Your task to perform on an android device: toggle improve location accuracy Image 0: 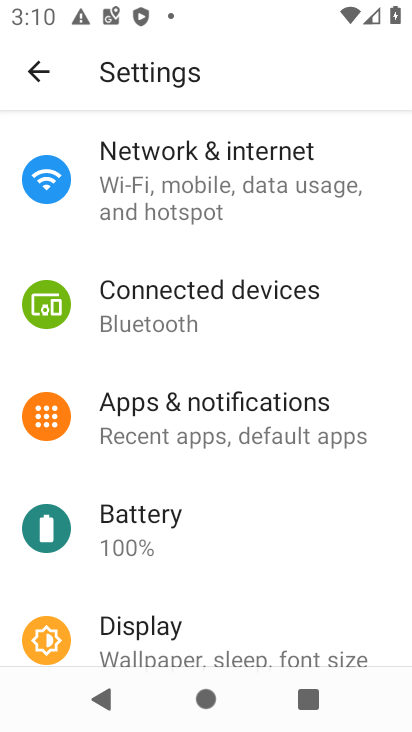
Step 0: press home button
Your task to perform on an android device: toggle improve location accuracy Image 1: 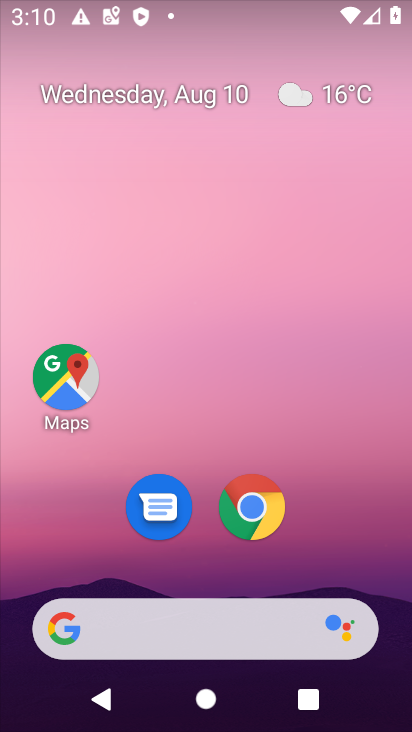
Step 1: drag from (363, 544) to (245, 75)
Your task to perform on an android device: toggle improve location accuracy Image 2: 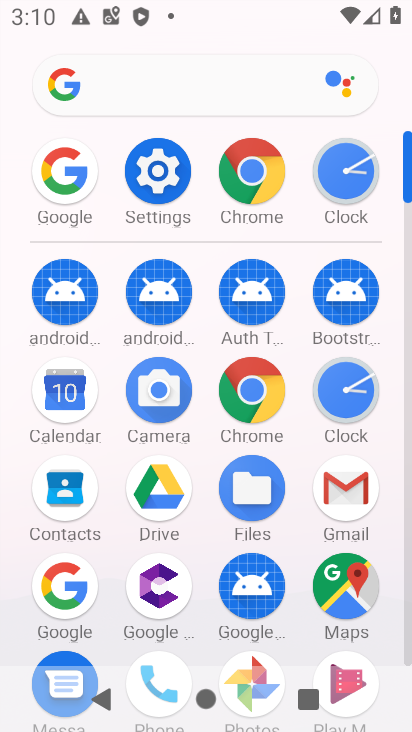
Step 2: drag from (201, 595) to (194, 269)
Your task to perform on an android device: toggle improve location accuracy Image 3: 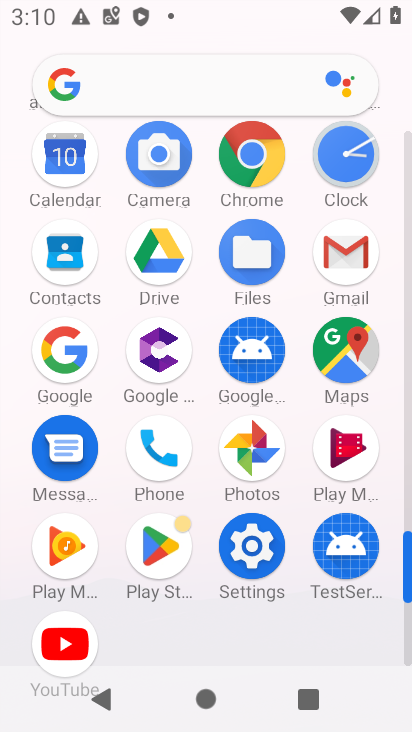
Step 3: click (247, 556)
Your task to perform on an android device: toggle improve location accuracy Image 4: 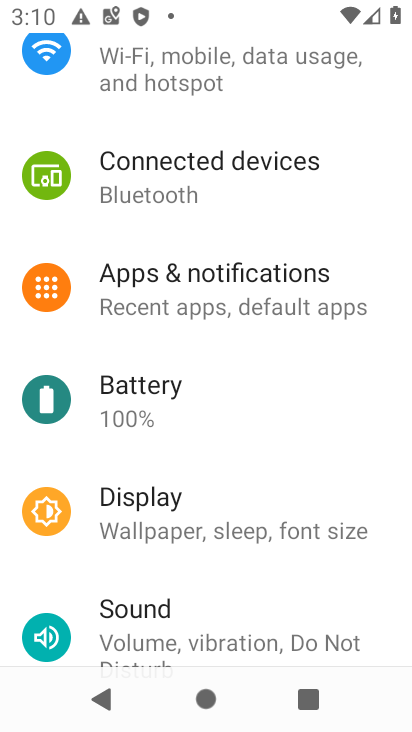
Step 4: drag from (271, 573) to (288, 192)
Your task to perform on an android device: toggle improve location accuracy Image 5: 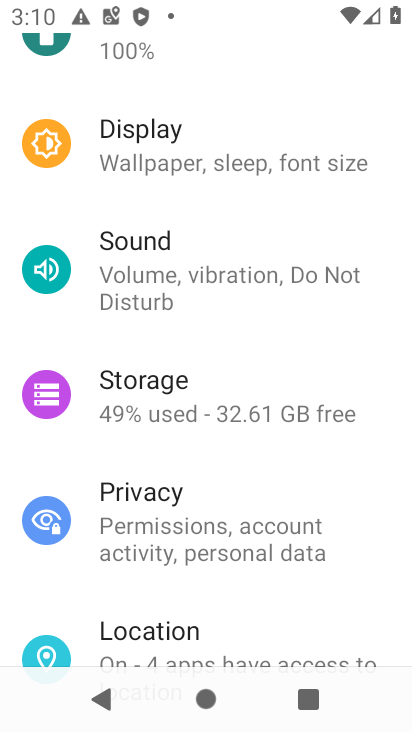
Step 5: click (163, 623)
Your task to perform on an android device: toggle improve location accuracy Image 6: 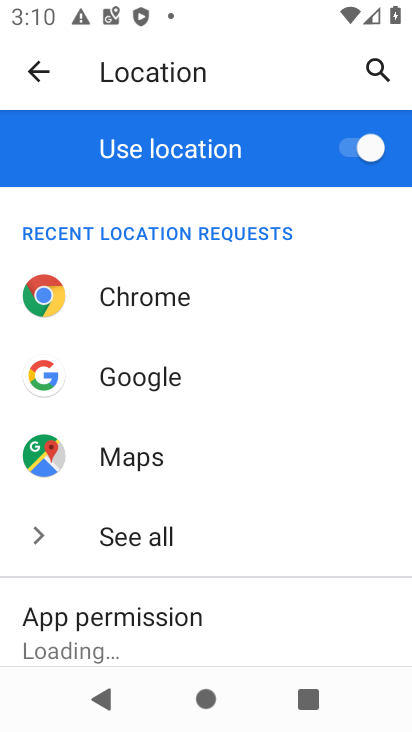
Step 6: drag from (257, 644) to (241, 248)
Your task to perform on an android device: toggle improve location accuracy Image 7: 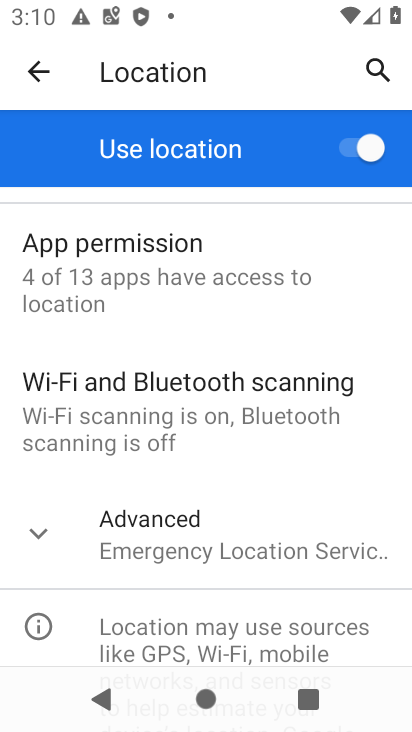
Step 7: click (151, 519)
Your task to perform on an android device: toggle improve location accuracy Image 8: 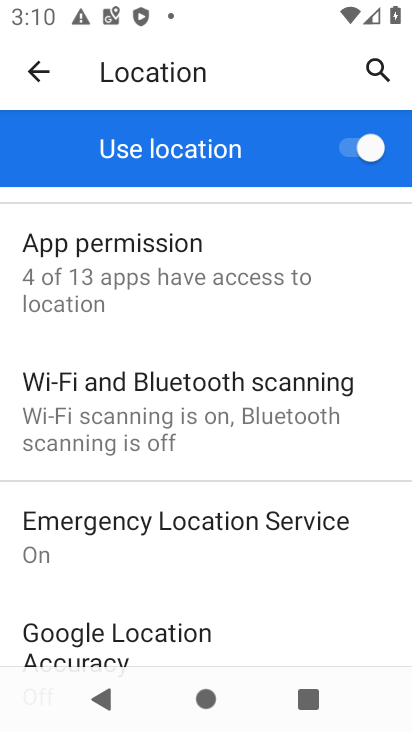
Step 8: drag from (269, 629) to (250, 206)
Your task to perform on an android device: toggle improve location accuracy Image 9: 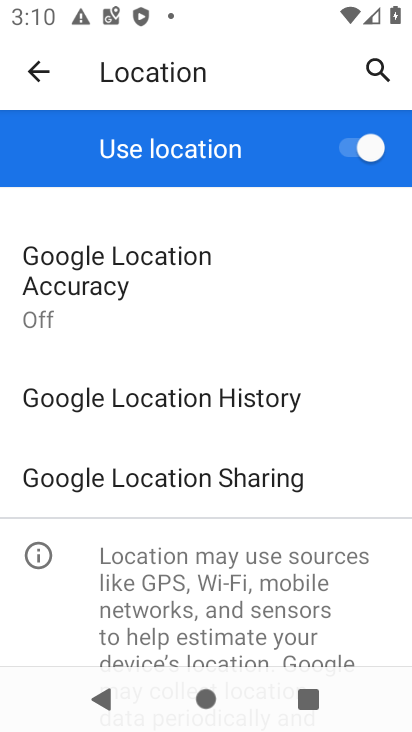
Step 9: click (157, 281)
Your task to perform on an android device: toggle improve location accuracy Image 10: 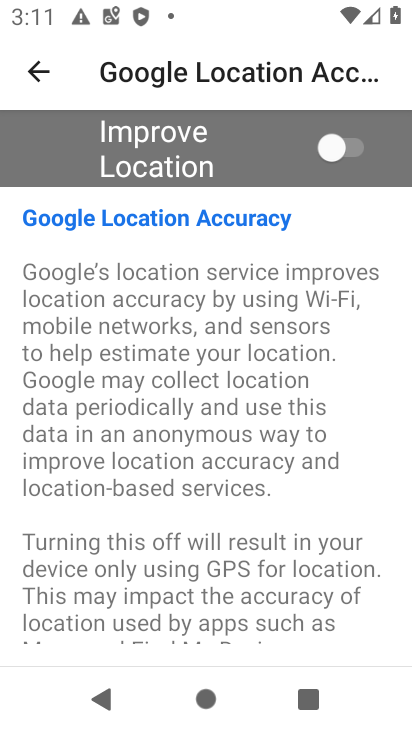
Step 10: click (346, 140)
Your task to perform on an android device: toggle improve location accuracy Image 11: 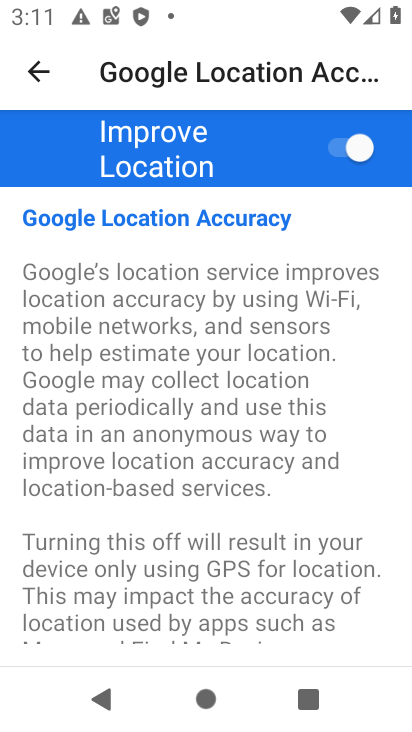
Step 11: task complete